Your task to perform on an android device: open chrome and create a bookmark for the current page Image 0: 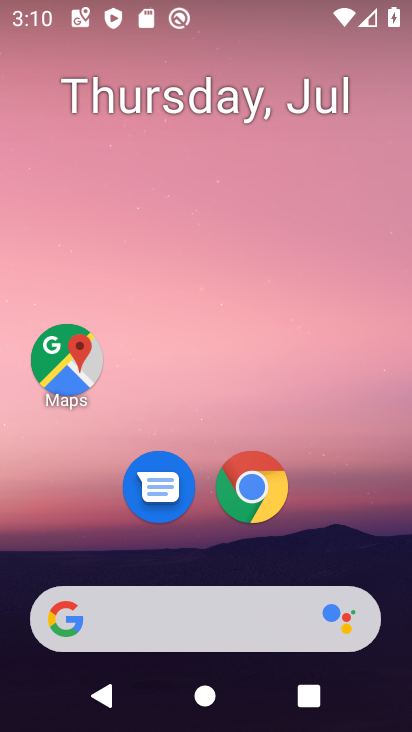
Step 0: click (243, 483)
Your task to perform on an android device: open chrome and create a bookmark for the current page Image 1: 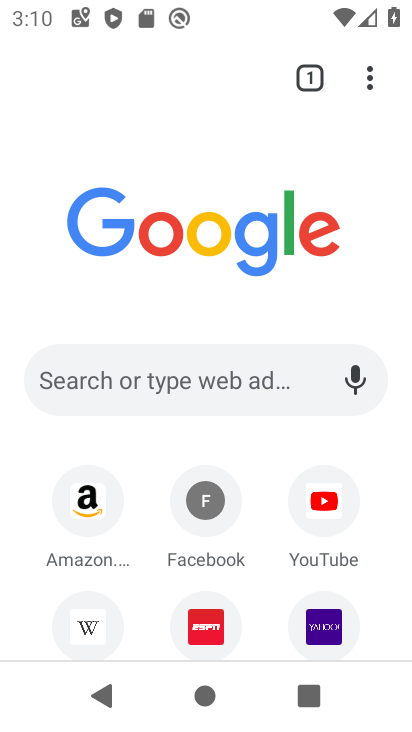
Step 1: task complete